Your task to perform on an android device: Go to Reddit.com Image 0: 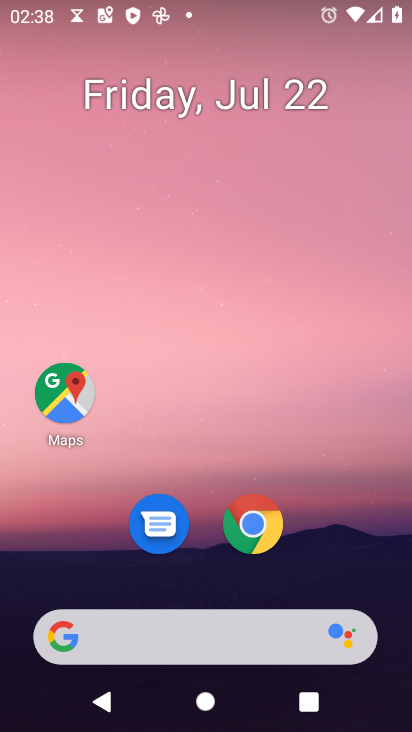
Step 0: click (257, 526)
Your task to perform on an android device: Go to Reddit.com Image 1: 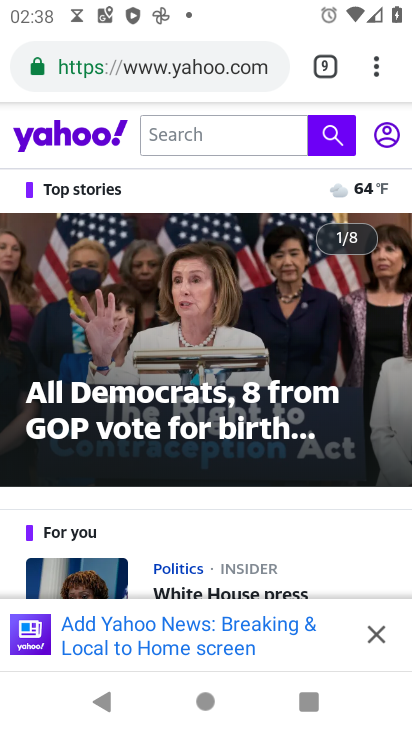
Step 1: drag from (379, 71) to (163, 137)
Your task to perform on an android device: Go to Reddit.com Image 2: 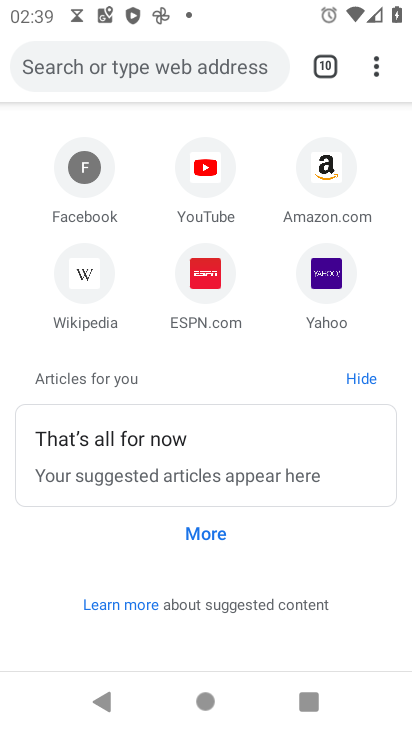
Step 2: click (151, 64)
Your task to perform on an android device: Go to Reddit.com Image 3: 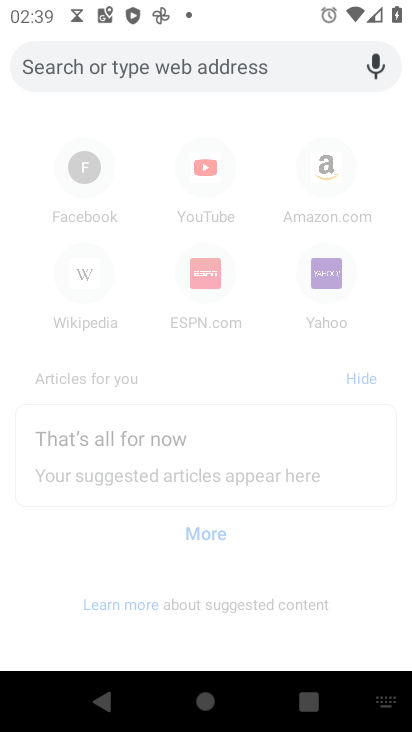
Step 3: type "reddit.com"
Your task to perform on an android device: Go to Reddit.com Image 4: 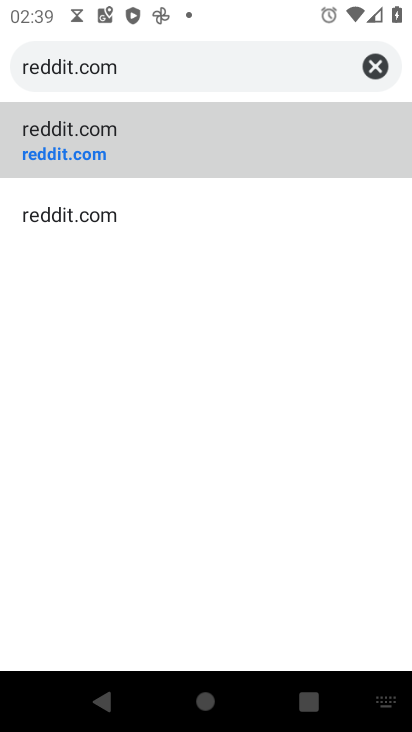
Step 4: click (82, 129)
Your task to perform on an android device: Go to Reddit.com Image 5: 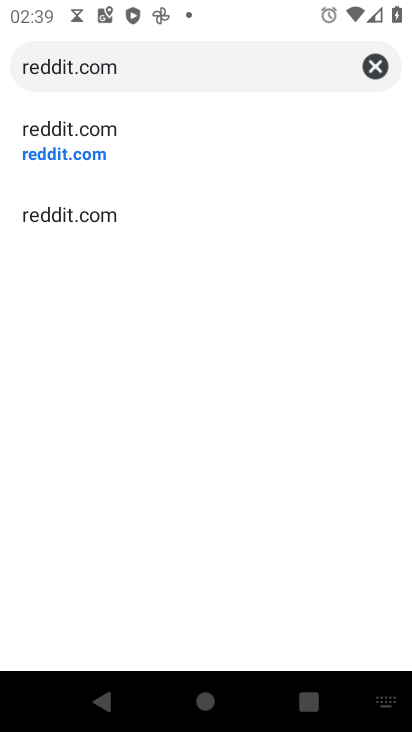
Step 5: click (68, 134)
Your task to perform on an android device: Go to Reddit.com Image 6: 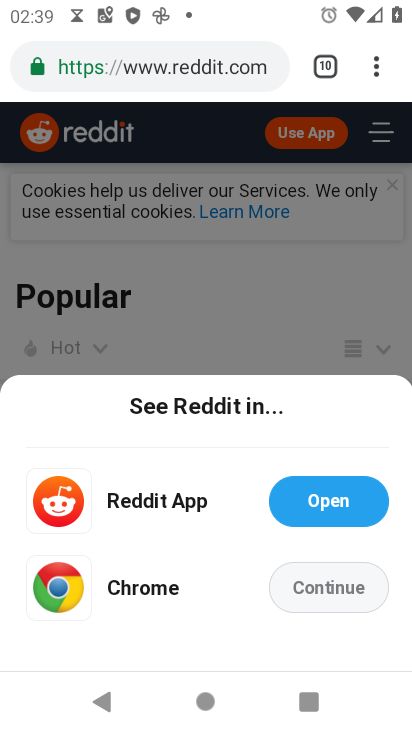
Step 6: task complete